Your task to perform on an android device: Go to Google maps Image 0: 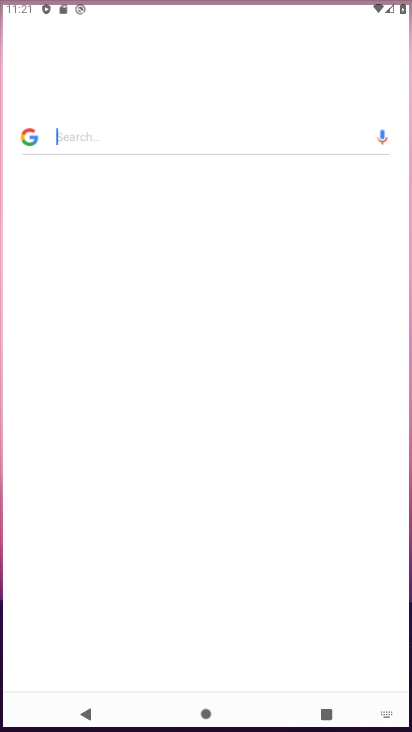
Step 0: drag from (299, 597) to (288, 196)
Your task to perform on an android device: Go to Google maps Image 1: 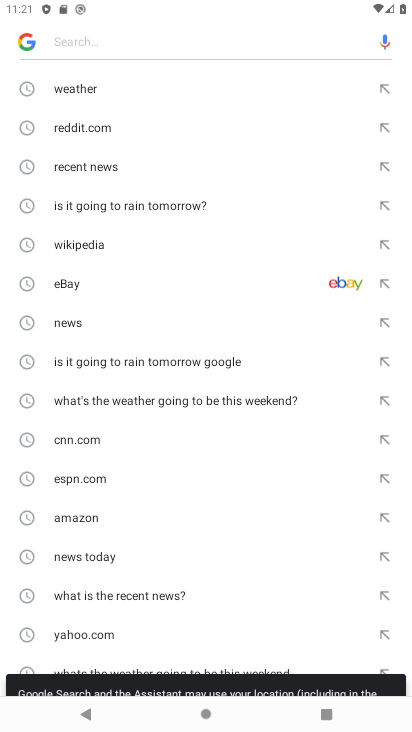
Step 1: press back button
Your task to perform on an android device: Go to Google maps Image 2: 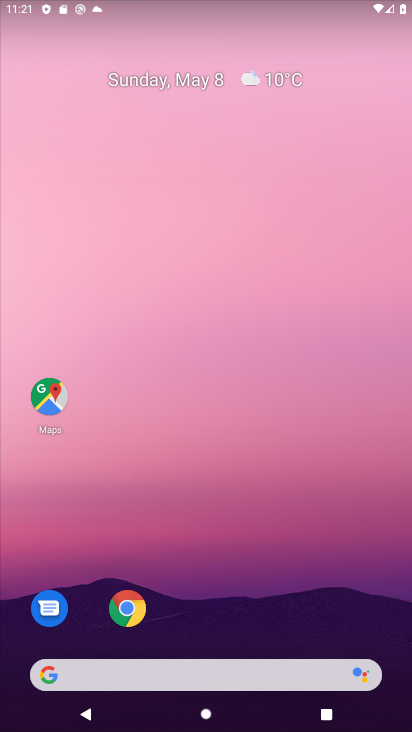
Step 2: click (62, 400)
Your task to perform on an android device: Go to Google maps Image 3: 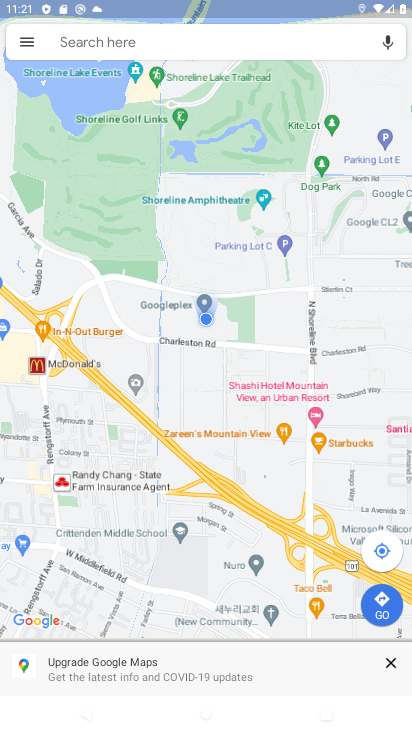
Step 3: task complete